Your task to perform on an android device: find photos in the google photos app Image 0: 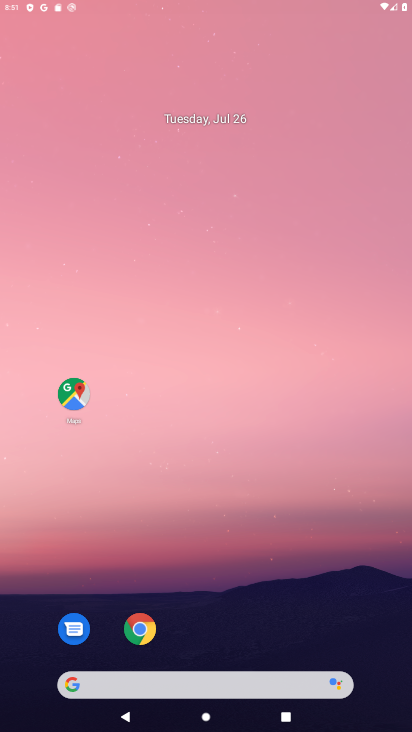
Step 0: press home button
Your task to perform on an android device: find photos in the google photos app Image 1: 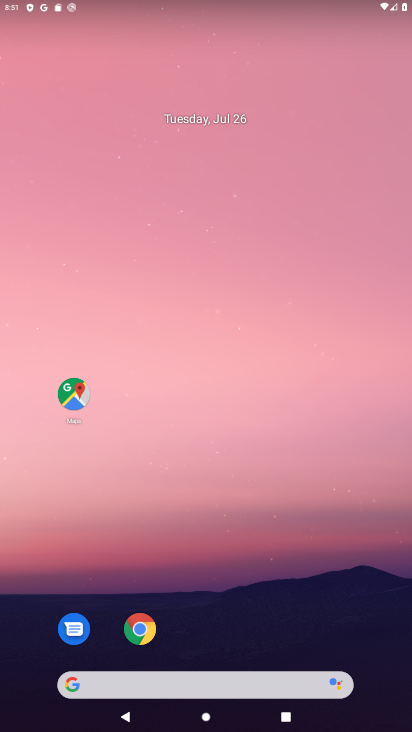
Step 1: drag from (303, 285) to (306, 0)
Your task to perform on an android device: find photos in the google photos app Image 2: 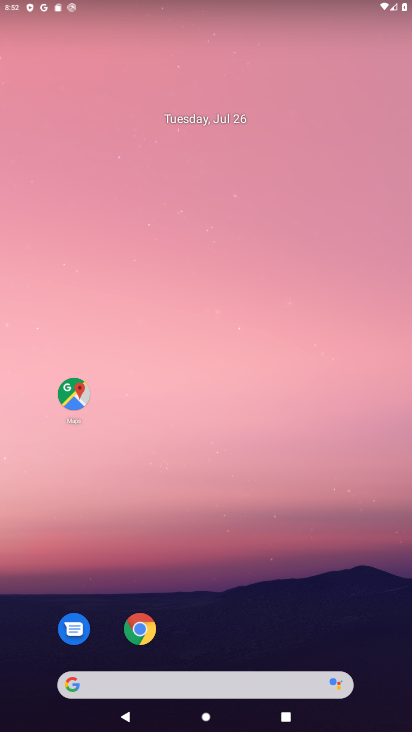
Step 2: drag from (281, 622) to (250, 39)
Your task to perform on an android device: find photos in the google photos app Image 3: 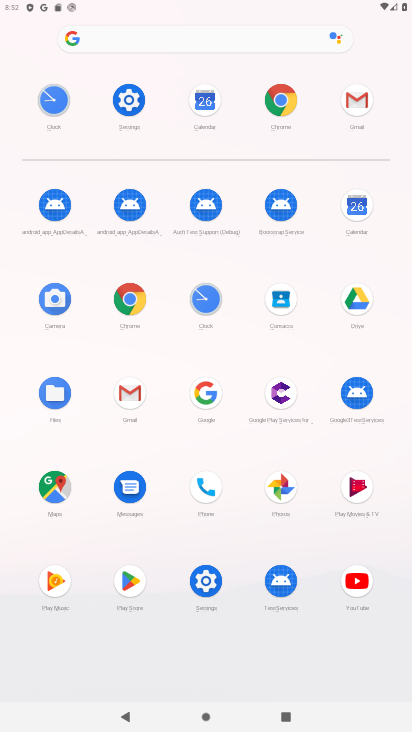
Step 3: click (258, 502)
Your task to perform on an android device: find photos in the google photos app Image 4: 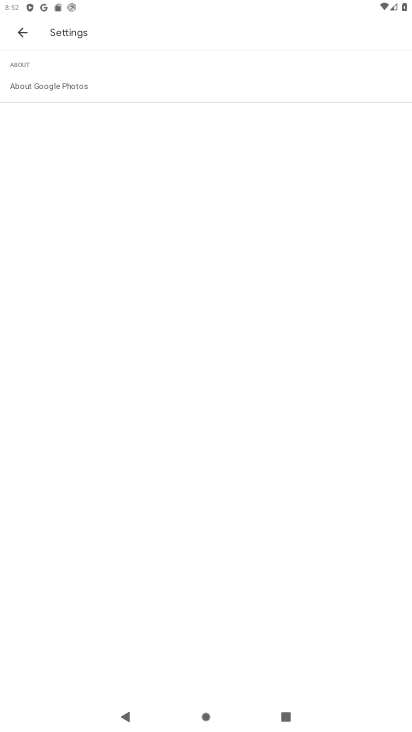
Step 4: click (16, 41)
Your task to perform on an android device: find photos in the google photos app Image 5: 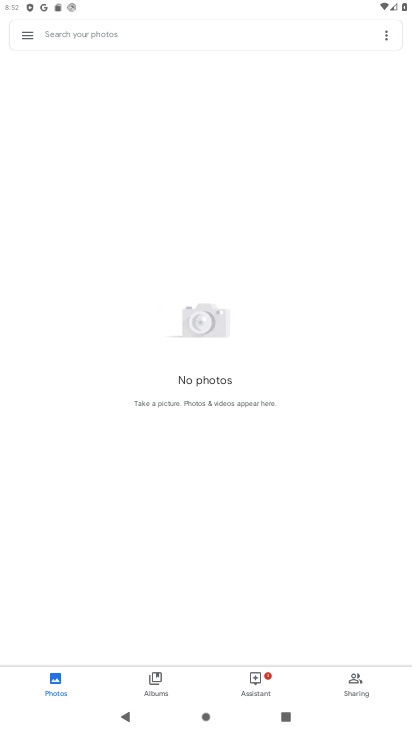
Step 5: task complete